Your task to perform on an android device: remove spam from my inbox in the gmail app Image 0: 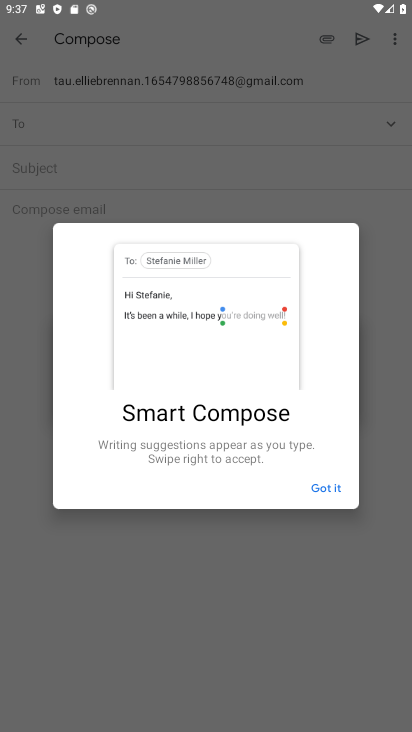
Step 0: press home button
Your task to perform on an android device: remove spam from my inbox in the gmail app Image 1: 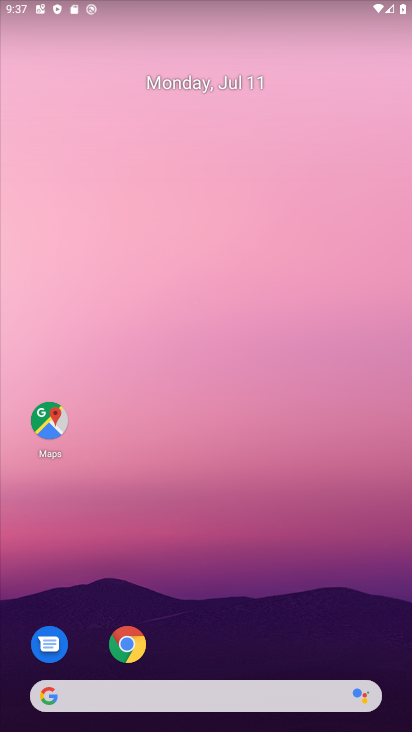
Step 1: drag from (211, 652) to (191, 90)
Your task to perform on an android device: remove spam from my inbox in the gmail app Image 2: 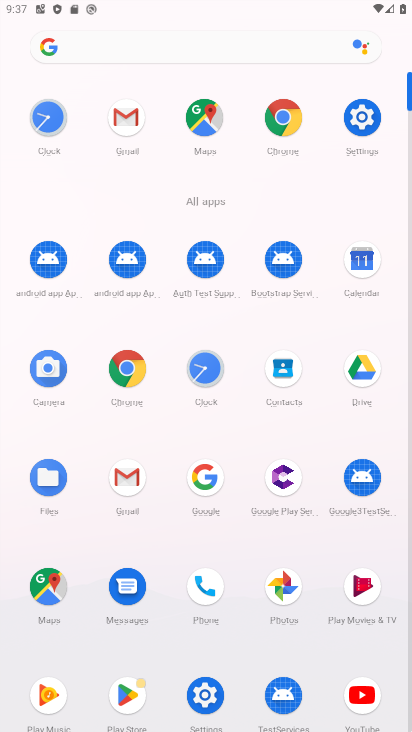
Step 2: click (129, 112)
Your task to perform on an android device: remove spam from my inbox in the gmail app Image 3: 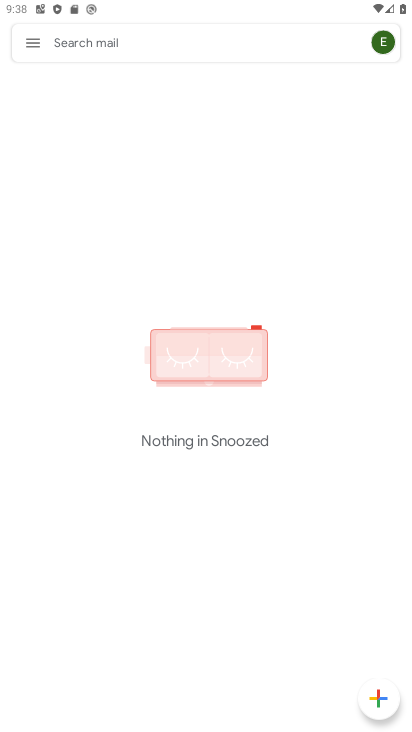
Step 3: click (39, 37)
Your task to perform on an android device: remove spam from my inbox in the gmail app Image 4: 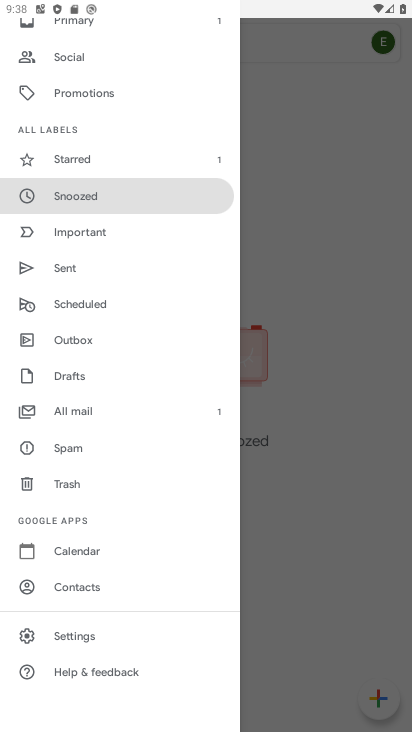
Step 4: click (58, 452)
Your task to perform on an android device: remove spam from my inbox in the gmail app Image 5: 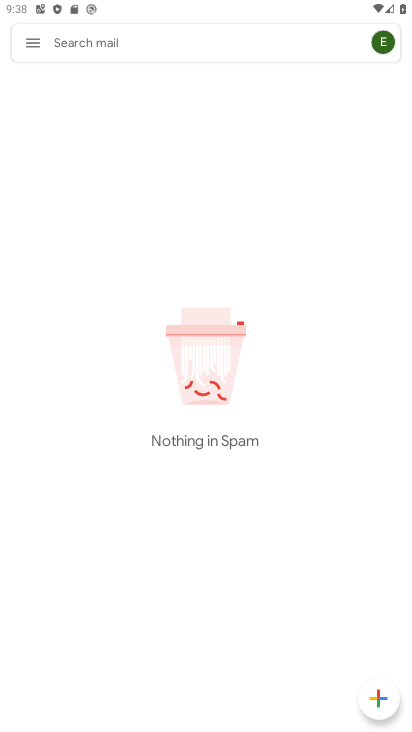
Step 5: click (27, 46)
Your task to perform on an android device: remove spam from my inbox in the gmail app Image 6: 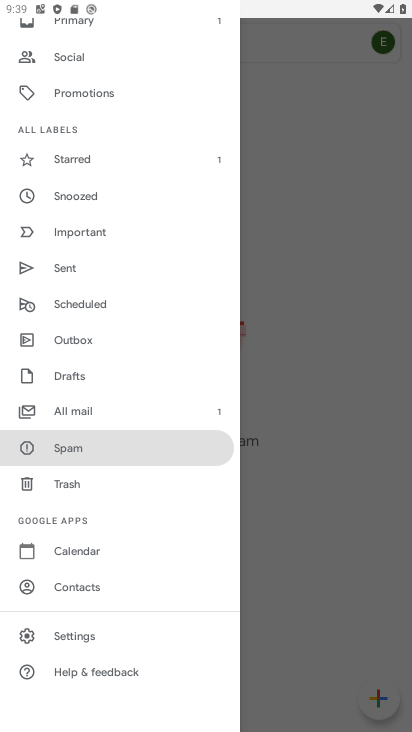
Step 6: click (100, 453)
Your task to perform on an android device: remove spam from my inbox in the gmail app Image 7: 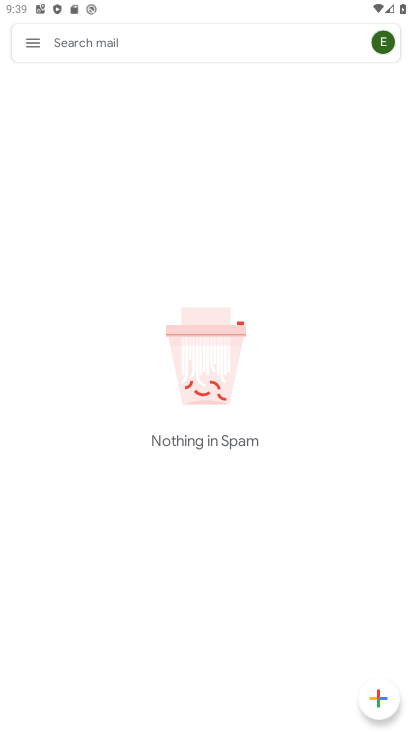
Step 7: task complete